Your task to perform on an android device: Open calendar and show me the fourth week of next month Image 0: 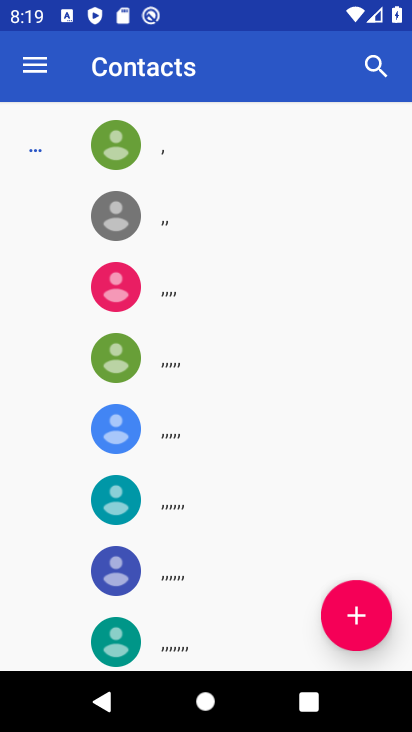
Step 0: press home button
Your task to perform on an android device: Open calendar and show me the fourth week of next month Image 1: 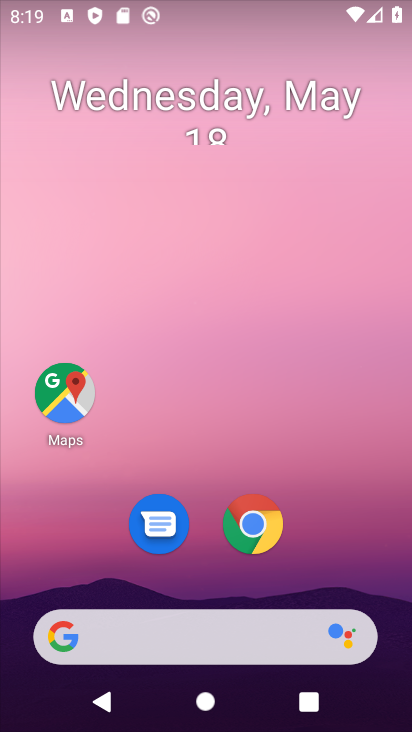
Step 1: drag from (346, 538) to (328, 61)
Your task to perform on an android device: Open calendar and show me the fourth week of next month Image 2: 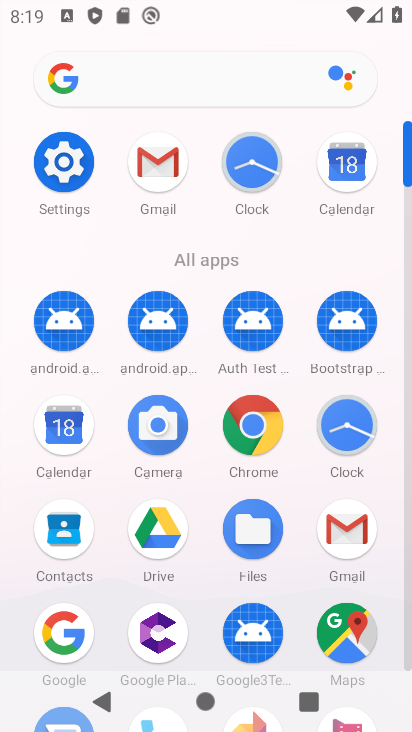
Step 2: click (358, 179)
Your task to perform on an android device: Open calendar and show me the fourth week of next month Image 3: 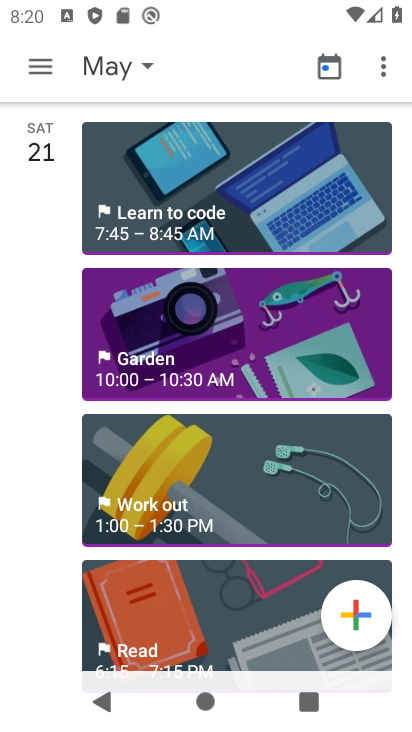
Step 3: click (37, 56)
Your task to perform on an android device: Open calendar and show me the fourth week of next month Image 4: 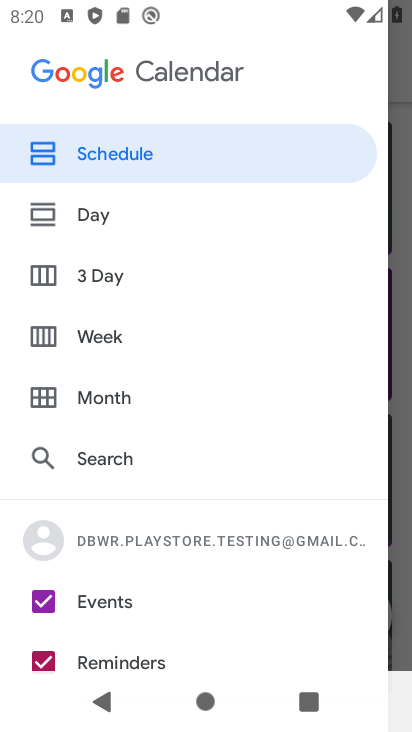
Step 4: click (51, 399)
Your task to perform on an android device: Open calendar and show me the fourth week of next month Image 5: 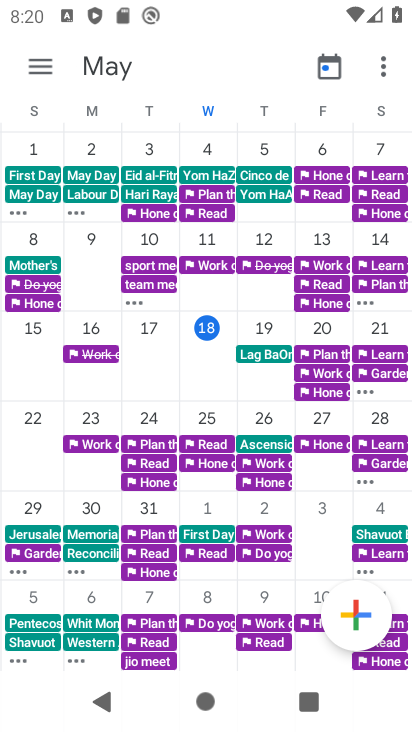
Step 5: drag from (370, 465) to (0, 436)
Your task to perform on an android device: Open calendar and show me the fourth week of next month Image 6: 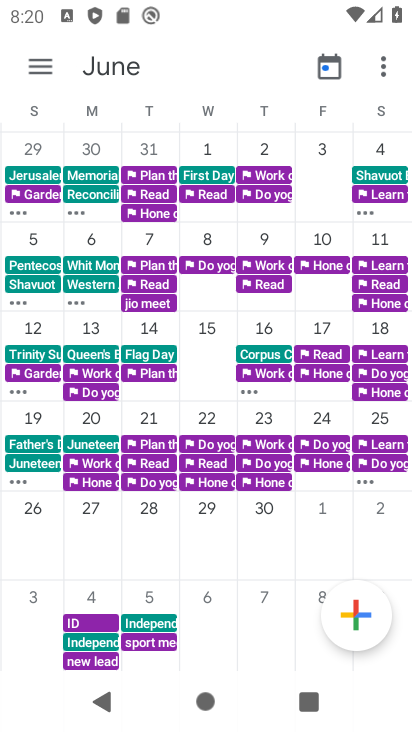
Step 6: click (33, 505)
Your task to perform on an android device: Open calendar and show me the fourth week of next month Image 7: 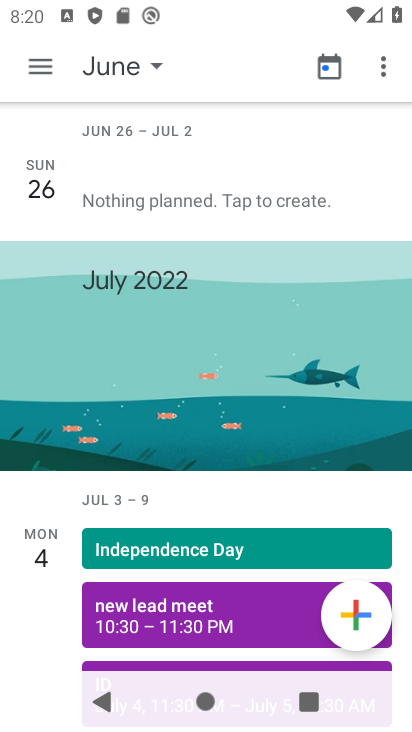
Step 7: click (45, 70)
Your task to perform on an android device: Open calendar and show me the fourth week of next month Image 8: 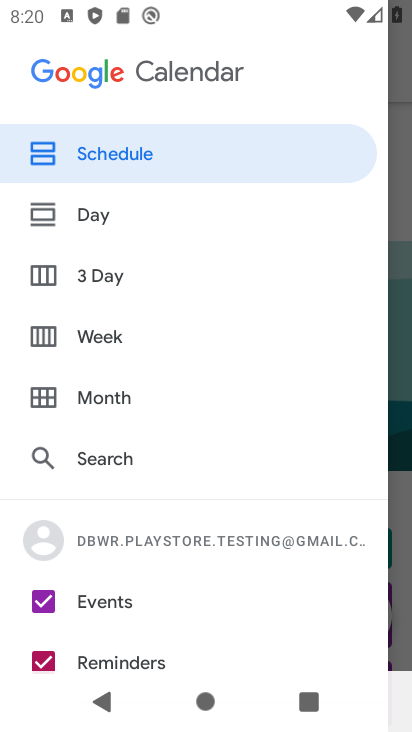
Step 8: click (46, 335)
Your task to perform on an android device: Open calendar and show me the fourth week of next month Image 9: 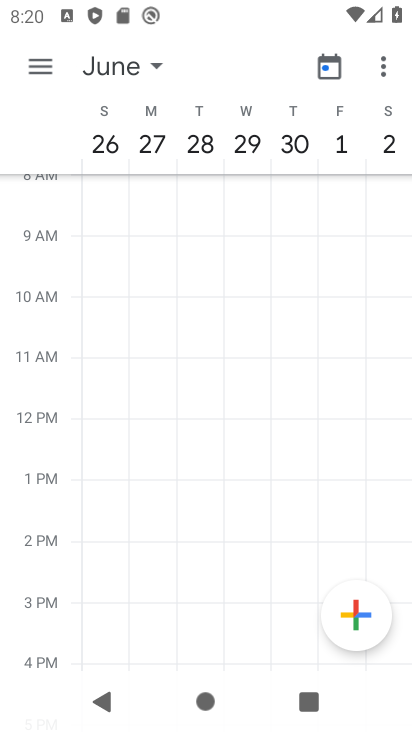
Step 9: task complete